Your task to perform on an android device: Open Google Chrome and open the bookmarks view Image 0: 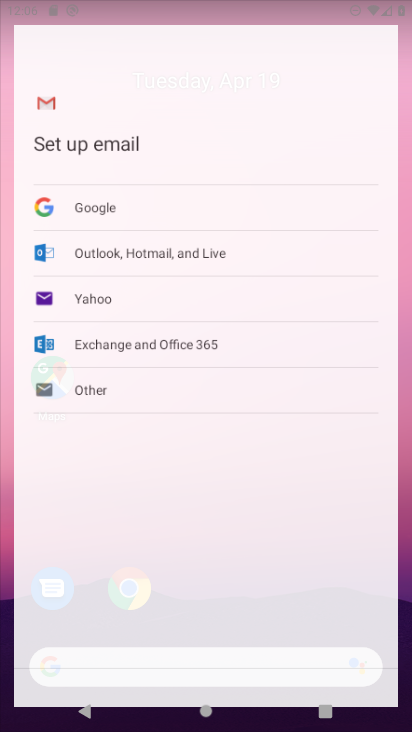
Step 0: drag from (284, 530) to (298, 29)
Your task to perform on an android device: Open Google Chrome and open the bookmarks view Image 1: 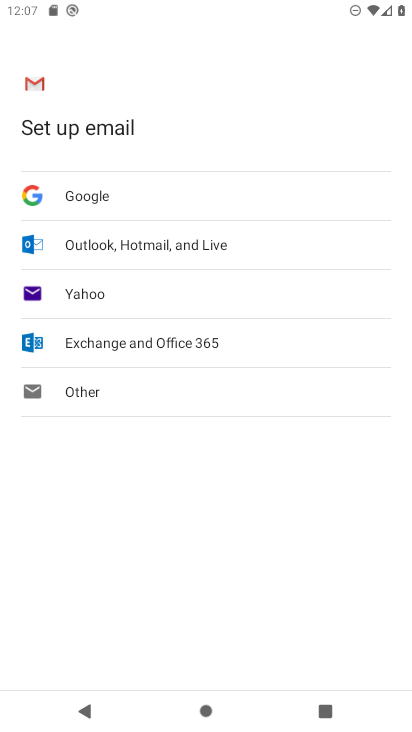
Step 1: press back button
Your task to perform on an android device: Open Google Chrome and open the bookmarks view Image 2: 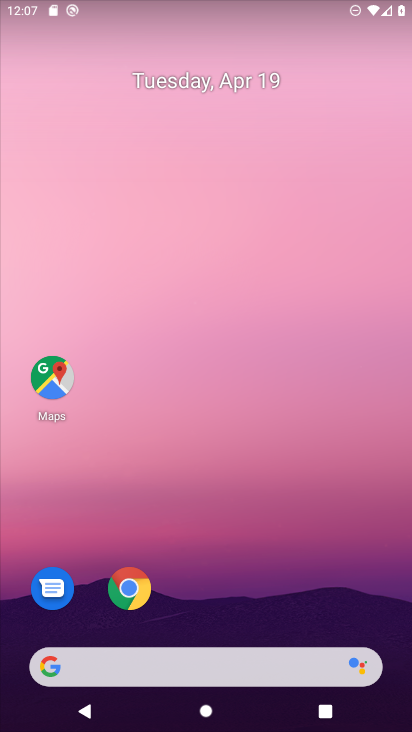
Step 2: drag from (279, 450) to (224, 19)
Your task to perform on an android device: Open Google Chrome and open the bookmarks view Image 3: 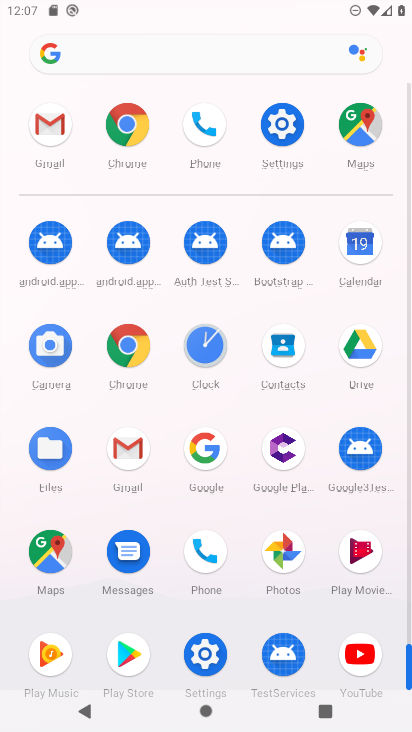
Step 3: click (126, 339)
Your task to perform on an android device: Open Google Chrome and open the bookmarks view Image 4: 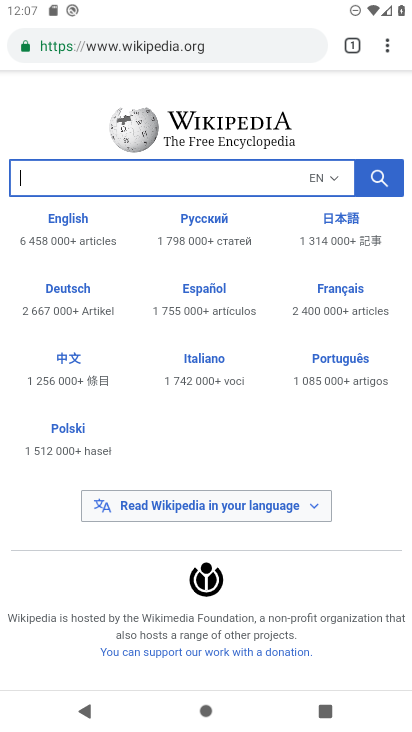
Step 4: task complete